Your task to perform on an android device: Open notification settings Image 0: 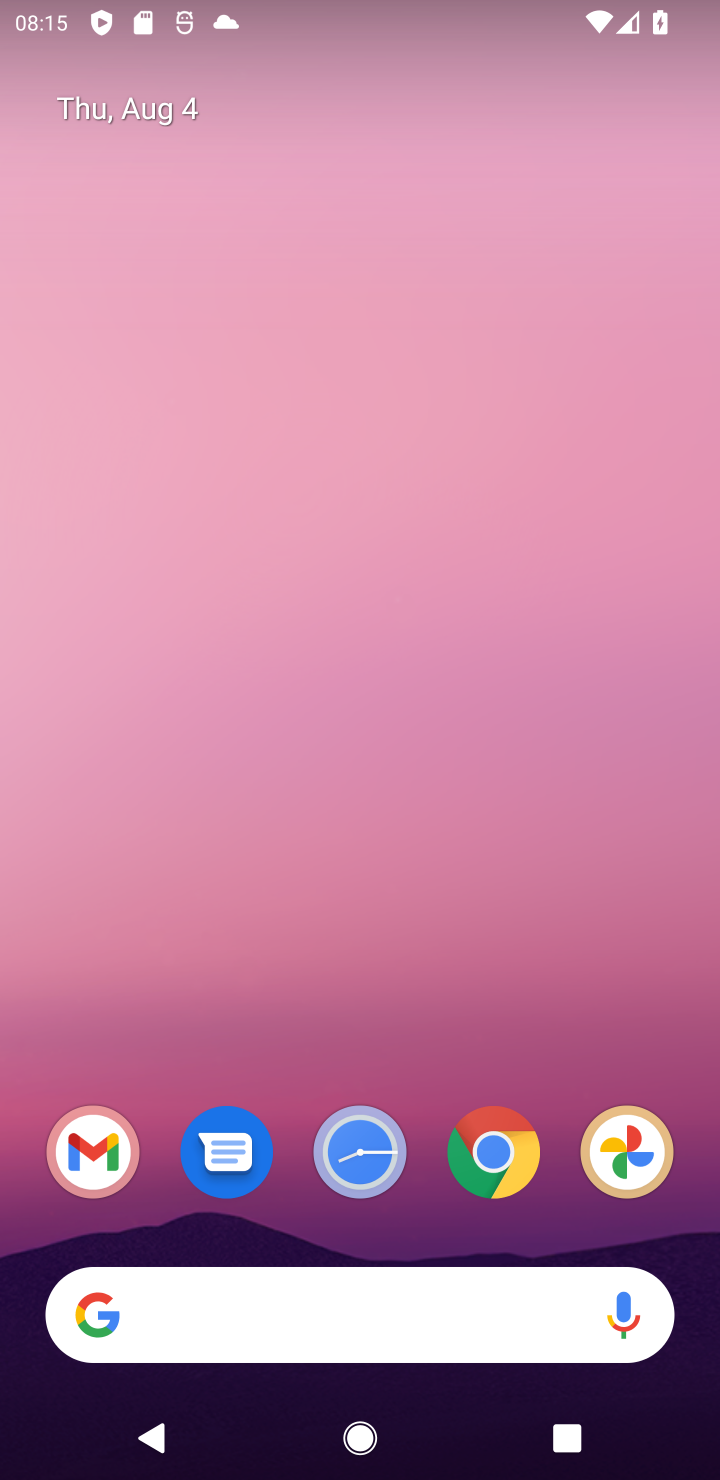
Step 0: drag from (604, 243) to (719, 129)
Your task to perform on an android device: Open notification settings Image 1: 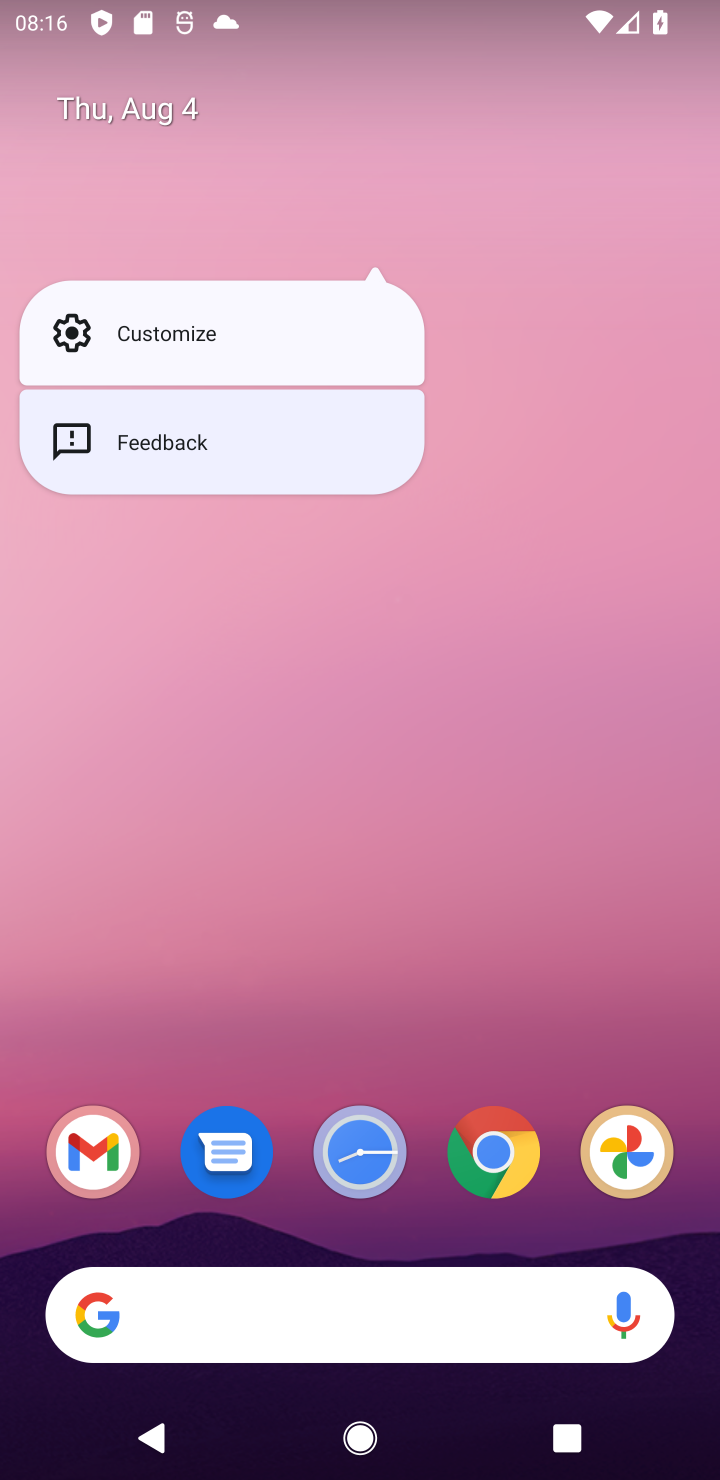
Step 1: drag from (118, 544) to (288, 207)
Your task to perform on an android device: Open notification settings Image 2: 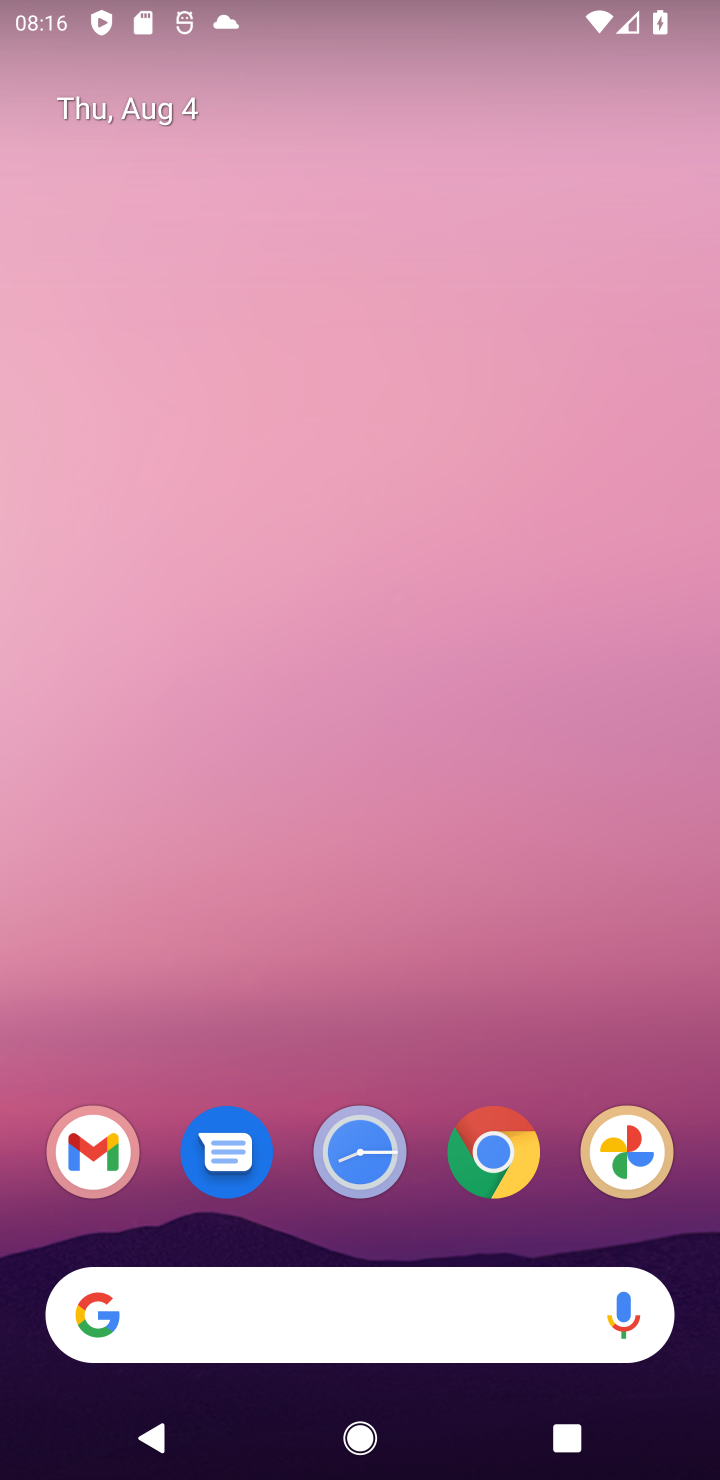
Step 2: drag from (156, 1146) to (527, 182)
Your task to perform on an android device: Open notification settings Image 3: 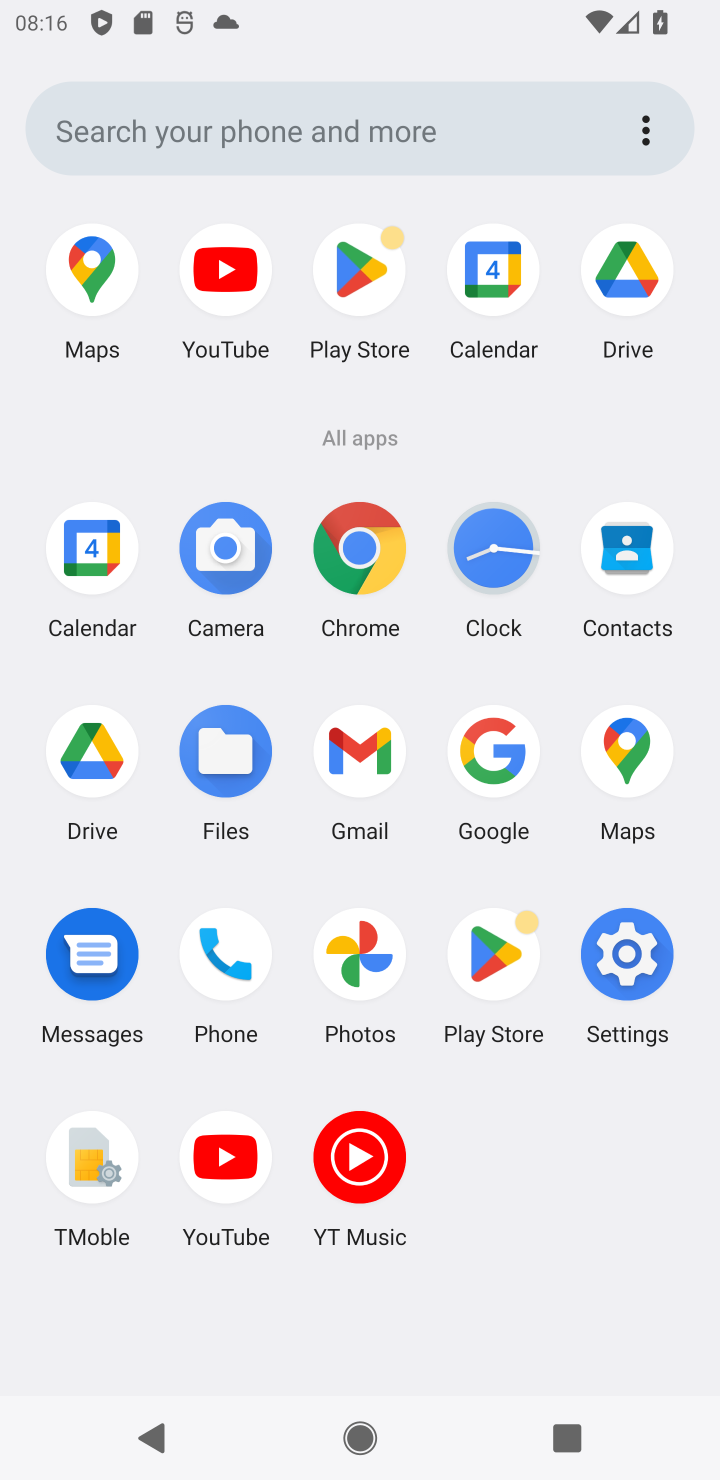
Step 3: click (594, 959)
Your task to perform on an android device: Open notification settings Image 4: 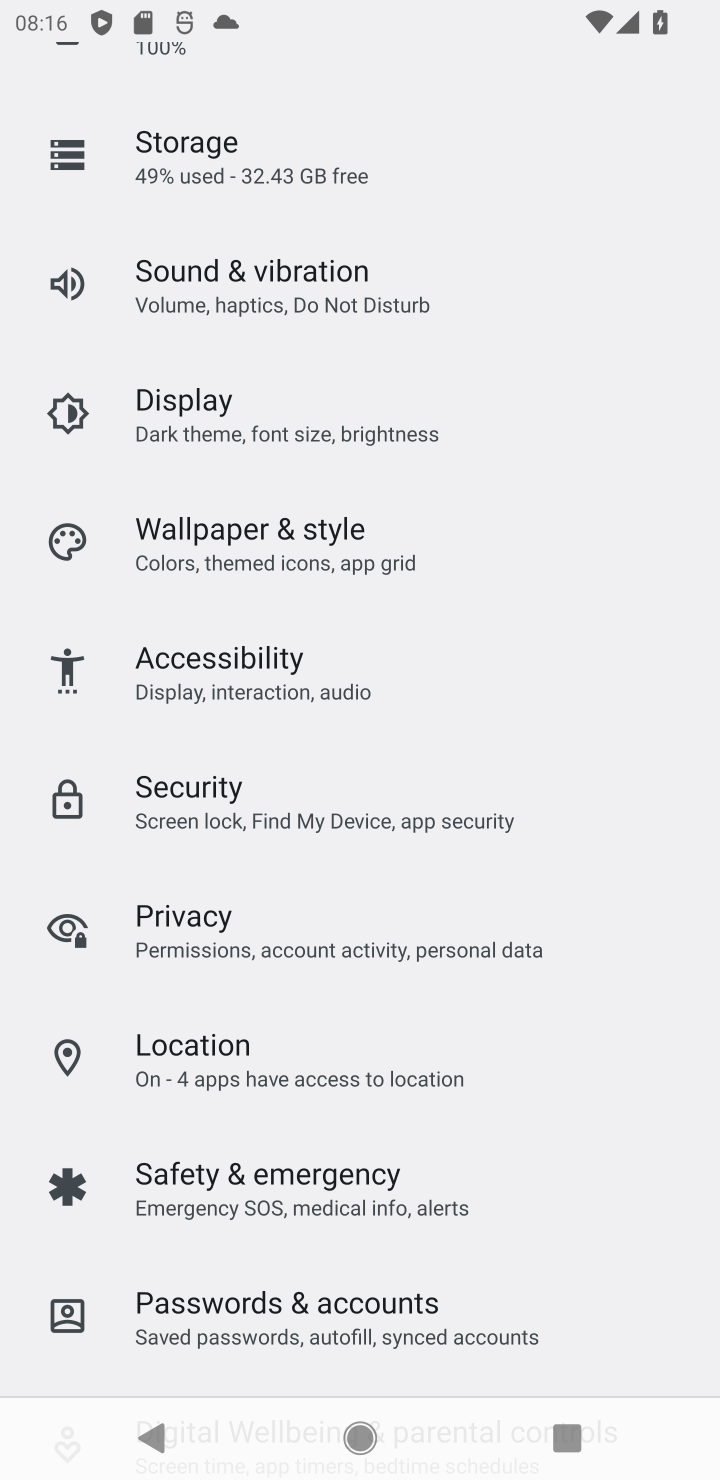
Step 4: drag from (306, 552) to (299, 1269)
Your task to perform on an android device: Open notification settings Image 5: 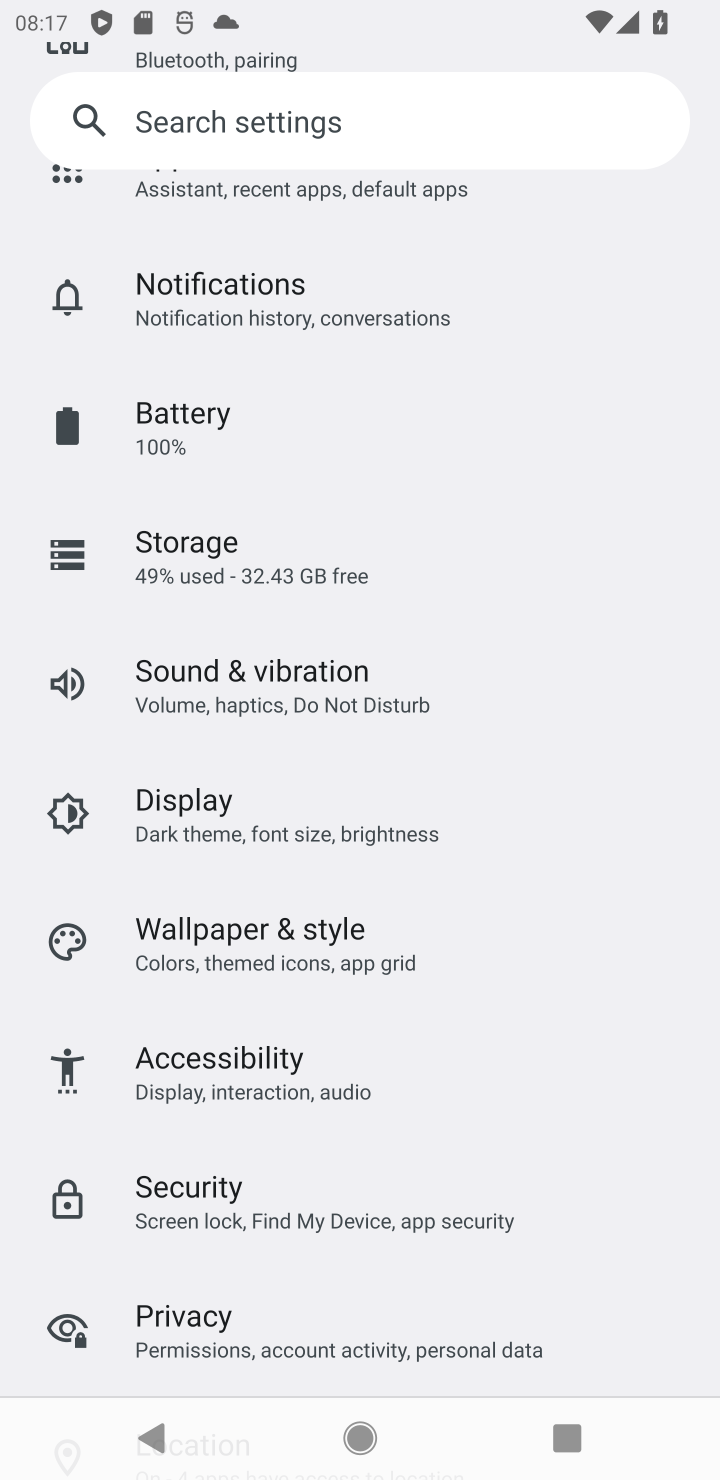
Step 5: click (188, 280)
Your task to perform on an android device: Open notification settings Image 6: 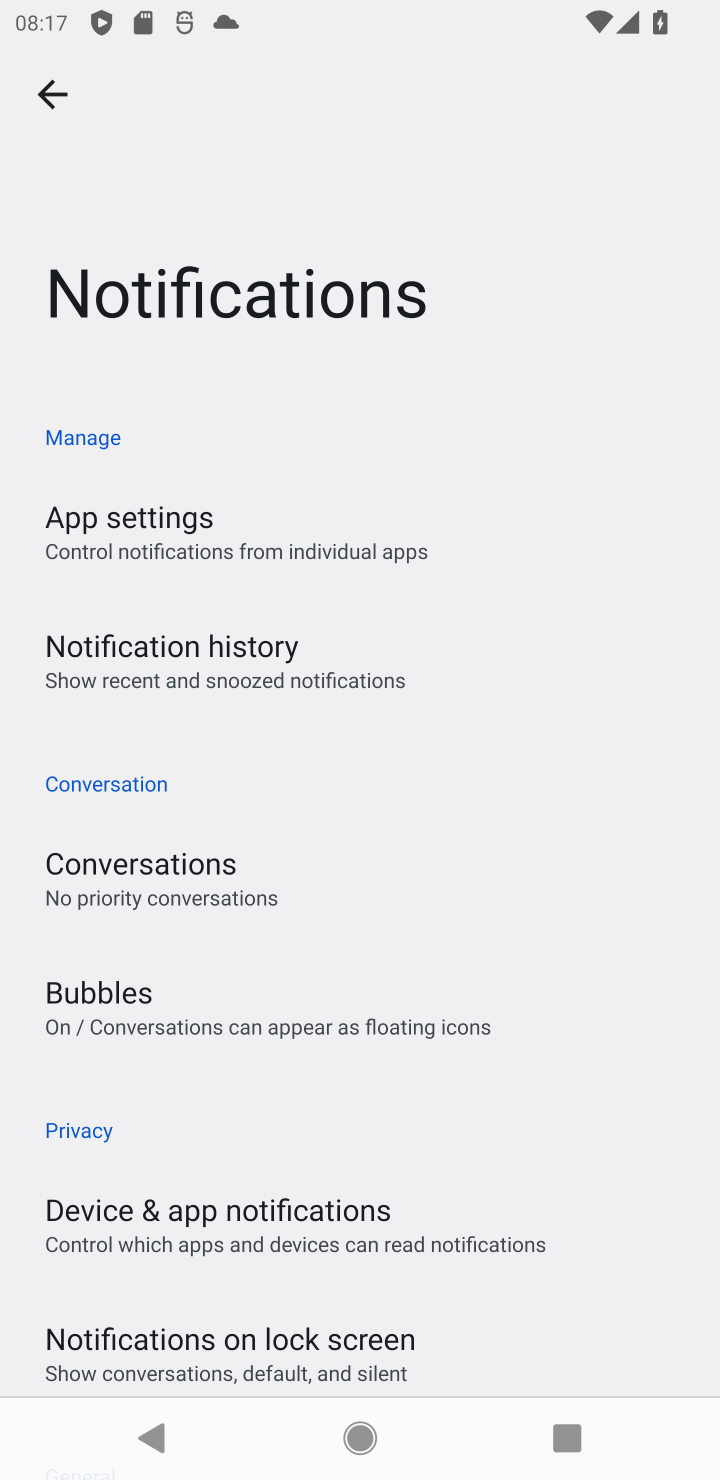
Step 6: task complete